Your task to perform on an android device: refresh tabs in the chrome app Image 0: 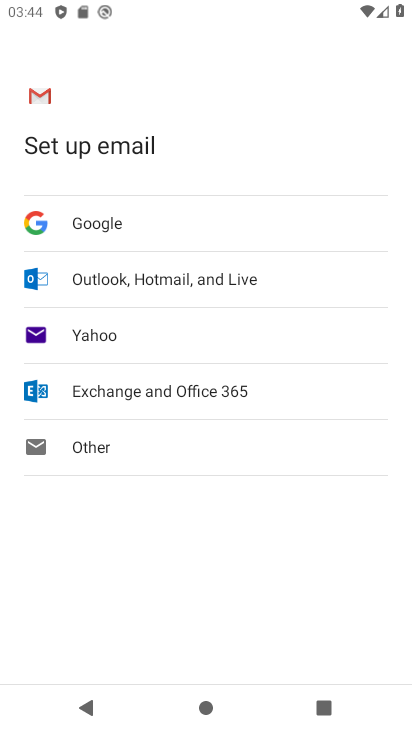
Step 0: press back button
Your task to perform on an android device: refresh tabs in the chrome app Image 1: 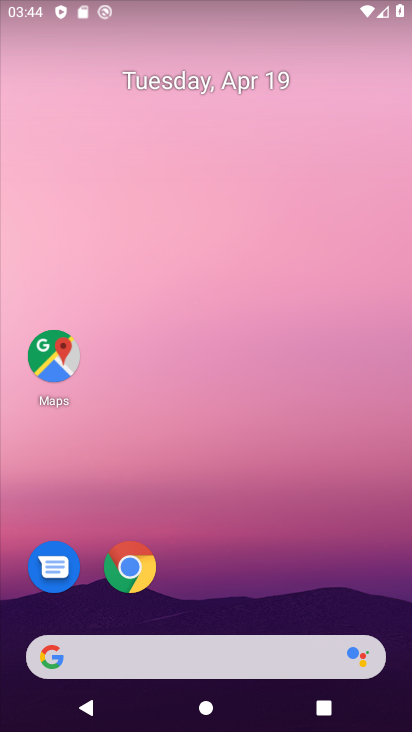
Step 1: click (115, 561)
Your task to perform on an android device: refresh tabs in the chrome app Image 2: 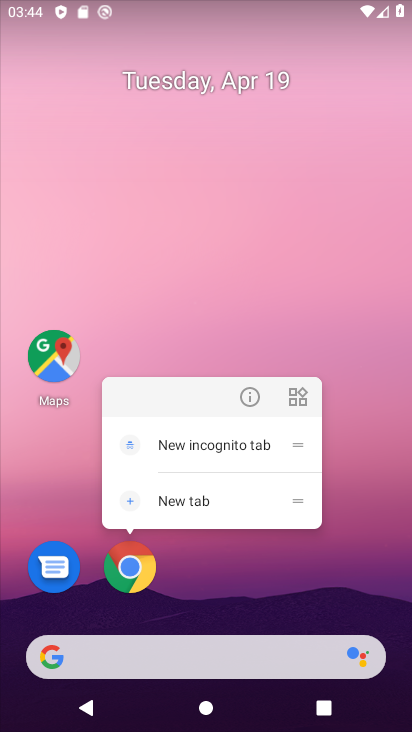
Step 2: click (118, 581)
Your task to perform on an android device: refresh tabs in the chrome app Image 3: 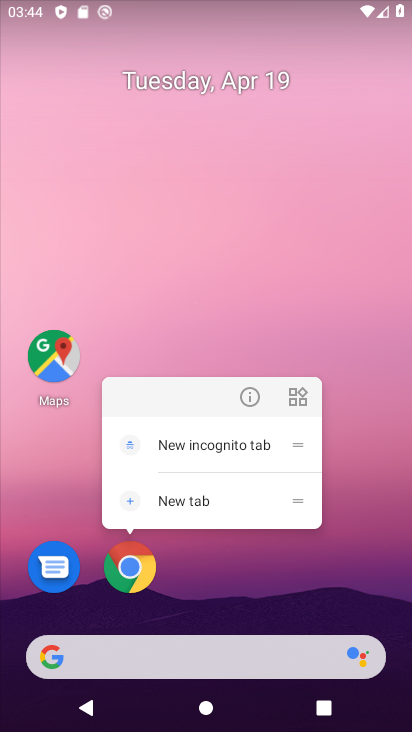
Step 3: click (126, 579)
Your task to perform on an android device: refresh tabs in the chrome app Image 4: 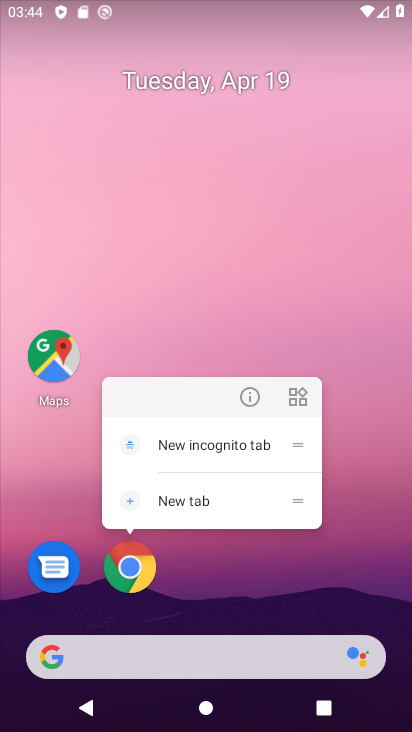
Step 4: click (129, 568)
Your task to perform on an android device: refresh tabs in the chrome app Image 5: 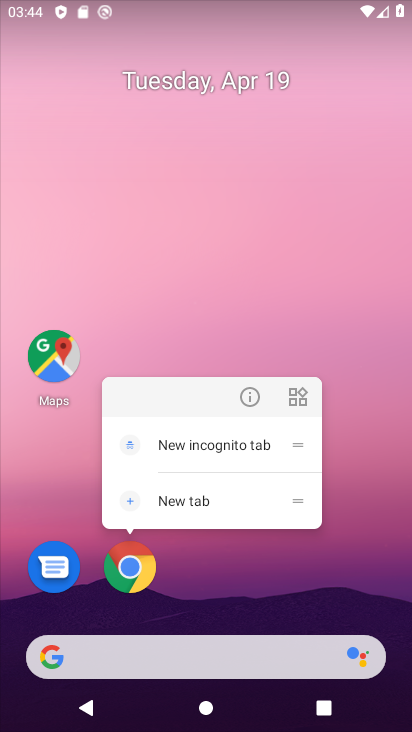
Step 5: click (137, 569)
Your task to perform on an android device: refresh tabs in the chrome app Image 6: 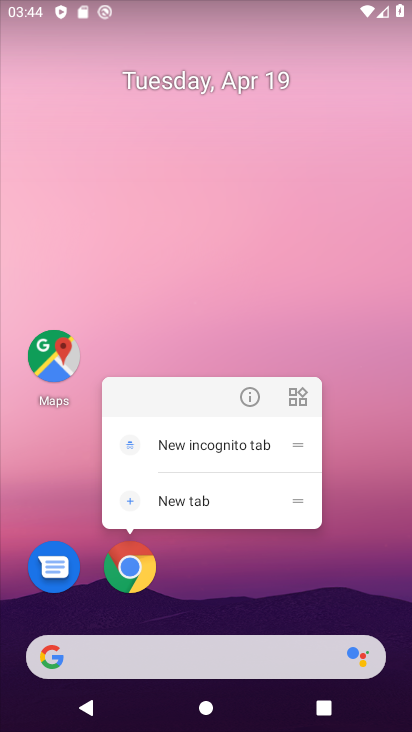
Step 6: click (132, 558)
Your task to perform on an android device: refresh tabs in the chrome app Image 7: 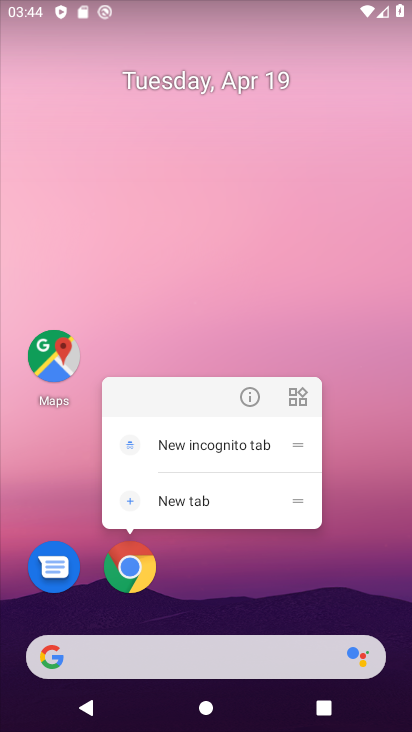
Step 7: click (135, 554)
Your task to perform on an android device: refresh tabs in the chrome app Image 8: 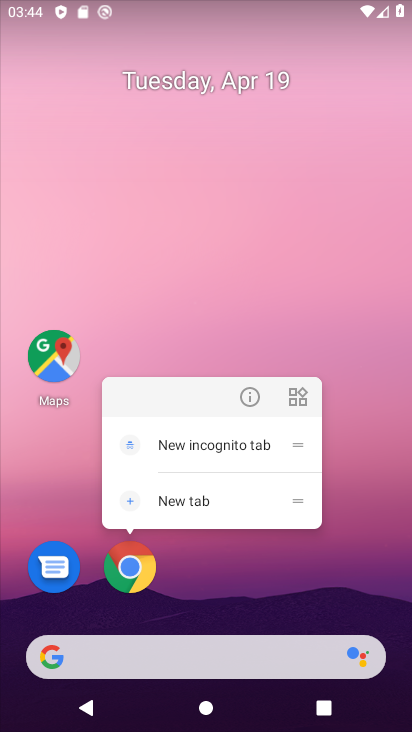
Step 8: click (127, 564)
Your task to perform on an android device: refresh tabs in the chrome app Image 9: 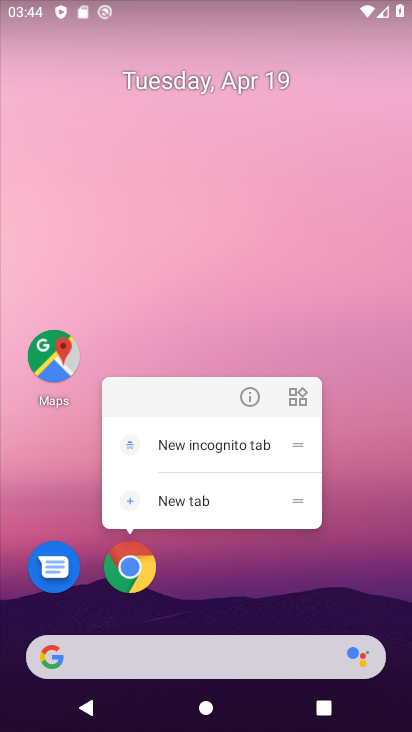
Step 9: click (103, 561)
Your task to perform on an android device: refresh tabs in the chrome app Image 10: 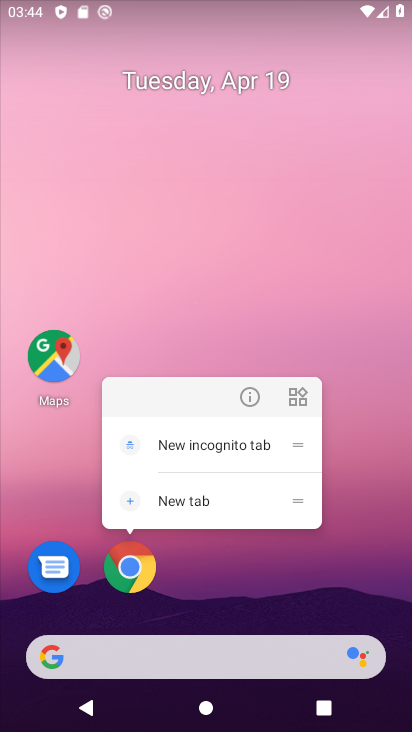
Step 10: click (127, 576)
Your task to perform on an android device: refresh tabs in the chrome app Image 11: 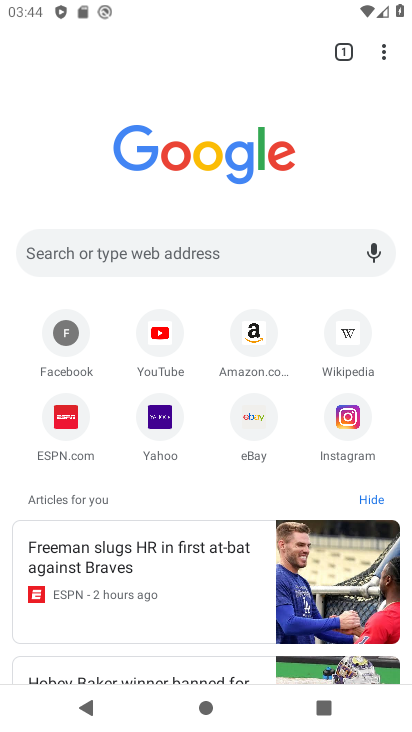
Step 11: click (382, 51)
Your task to perform on an android device: refresh tabs in the chrome app Image 12: 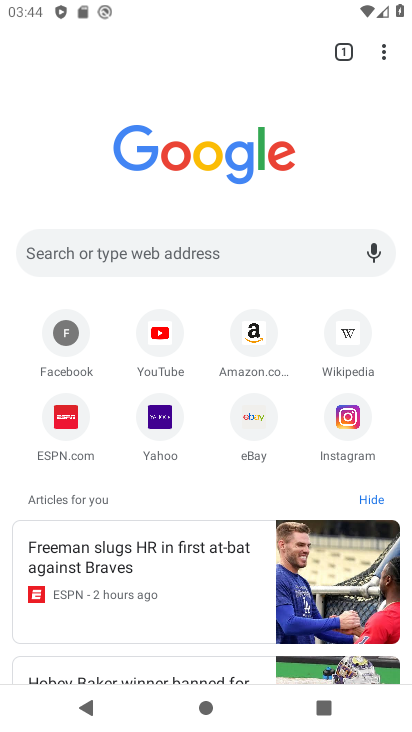
Step 12: click (382, 56)
Your task to perform on an android device: refresh tabs in the chrome app Image 13: 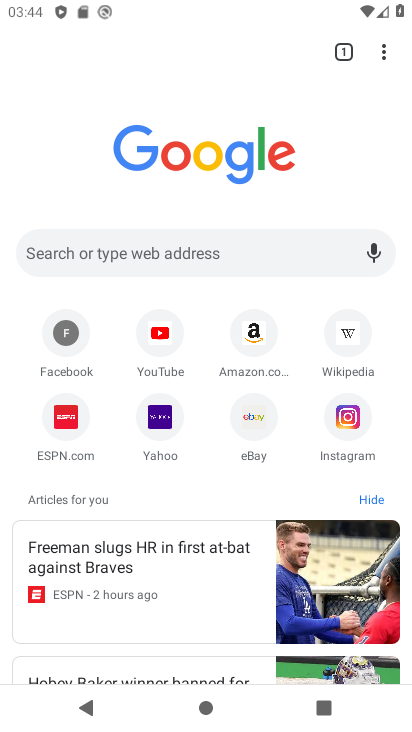
Step 13: click (383, 56)
Your task to perform on an android device: refresh tabs in the chrome app Image 14: 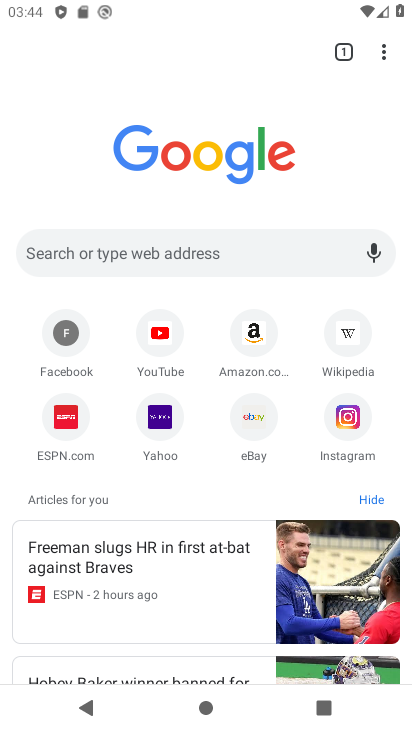
Step 14: click (383, 56)
Your task to perform on an android device: refresh tabs in the chrome app Image 15: 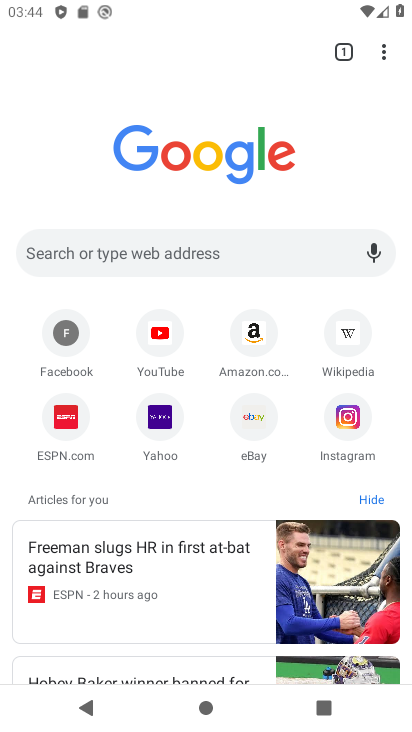
Step 15: task complete